Your task to perform on an android device: Open the phone app and click the voicemail tab. Image 0: 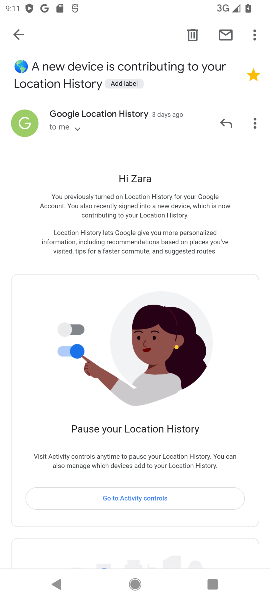
Step 0: press home button
Your task to perform on an android device: Open the phone app and click the voicemail tab. Image 1: 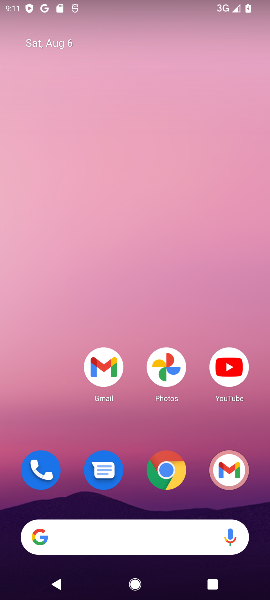
Step 1: click (40, 463)
Your task to perform on an android device: Open the phone app and click the voicemail tab. Image 2: 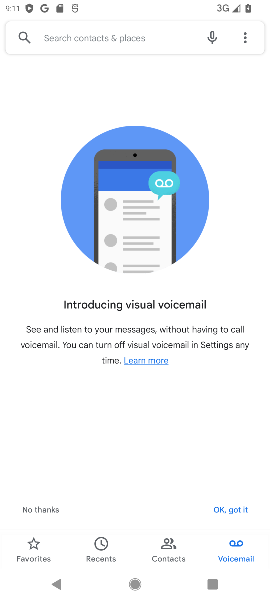
Step 2: task complete